Your task to perform on an android device: Open internet settings Image 0: 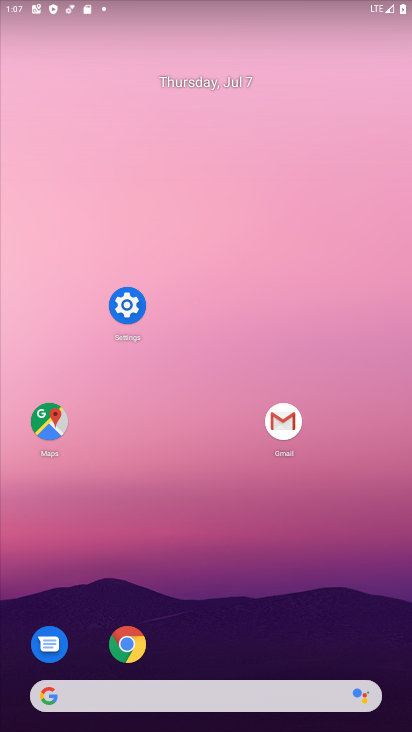
Step 0: click (124, 314)
Your task to perform on an android device: Open internet settings Image 1: 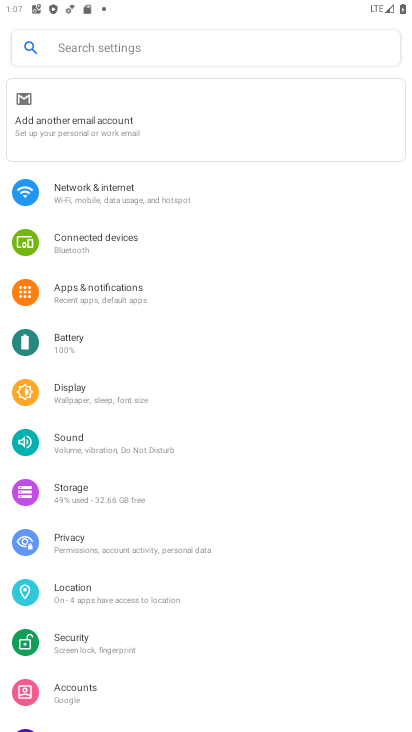
Step 1: click (97, 187)
Your task to perform on an android device: Open internet settings Image 2: 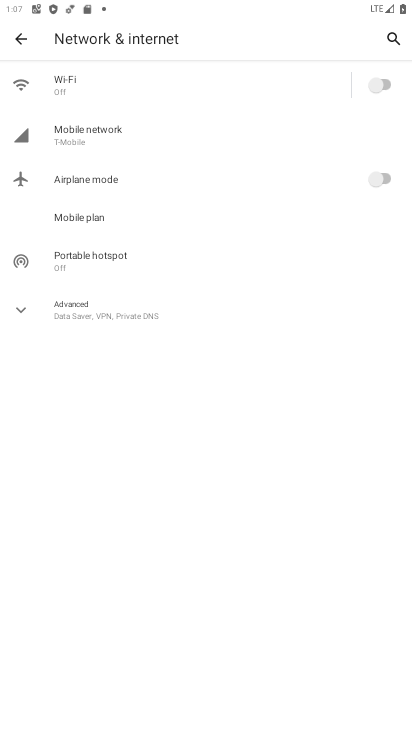
Step 2: click (22, 309)
Your task to perform on an android device: Open internet settings Image 3: 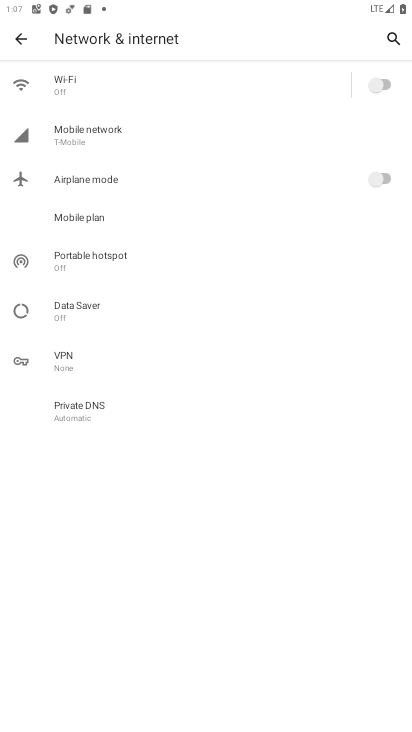
Step 3: task complete